Your task to perform on an android device: turn on wifi Image 0: 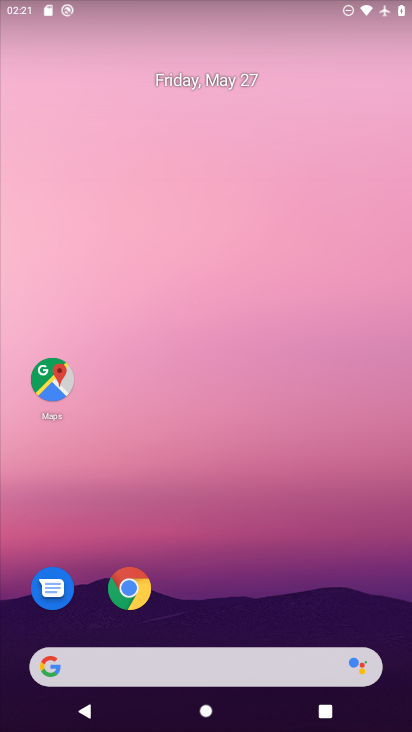
Step 0: drag from (389, 624) to (307, 25)
Your task to perform on an android device: turn on wifi Image 1: 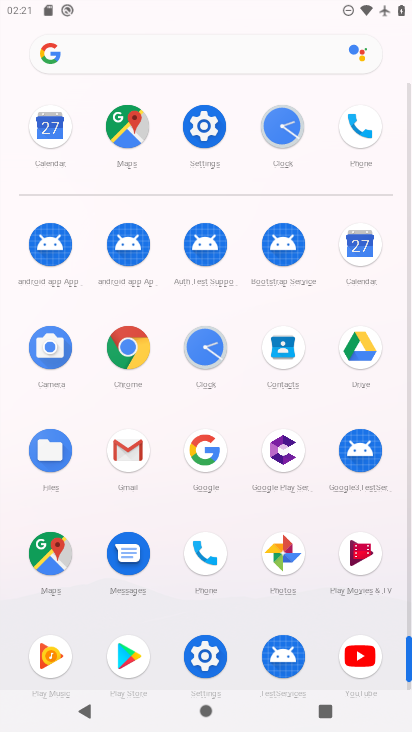
Step 1: click (204, 658)
Your task to perform on an android device: turn on wifi Image 2: 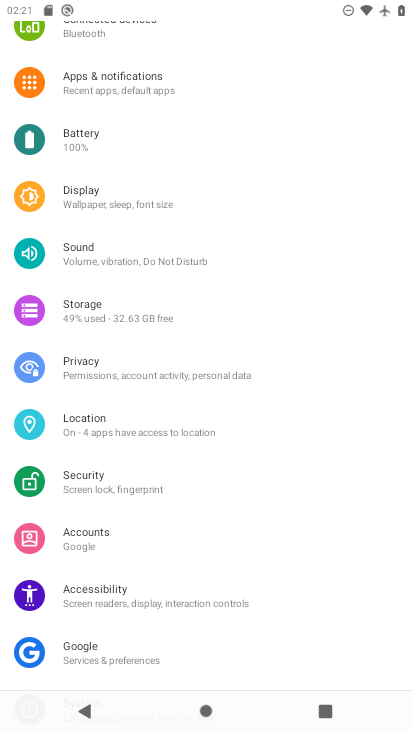
Step 2: drag from (308, 161) to (315, 469)
Your task to perform on an android device: turn on wifi Image 3: 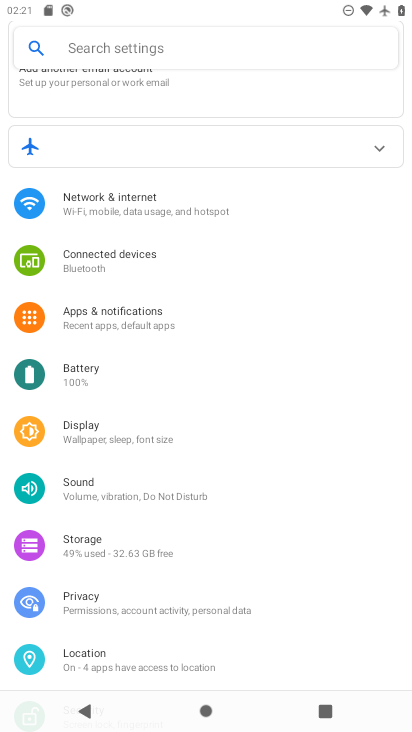
Step 3: click (93, 195)
Your task to perform on an android device: turn on wifi Image 4: 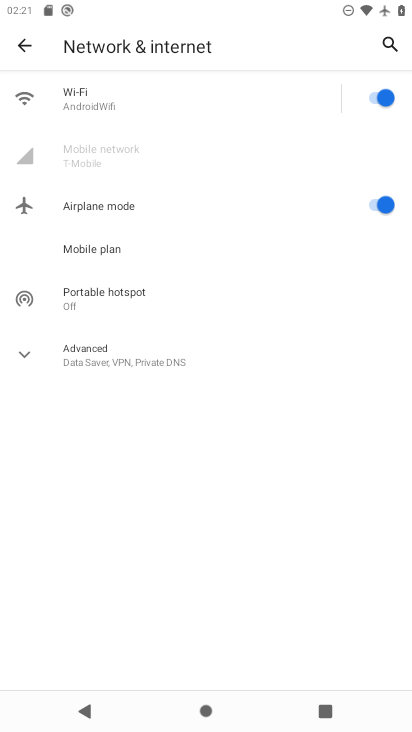
Step 4: task complete